Your task to perform on an android device: Empty the shopping cart on walmart.com. Image 0: 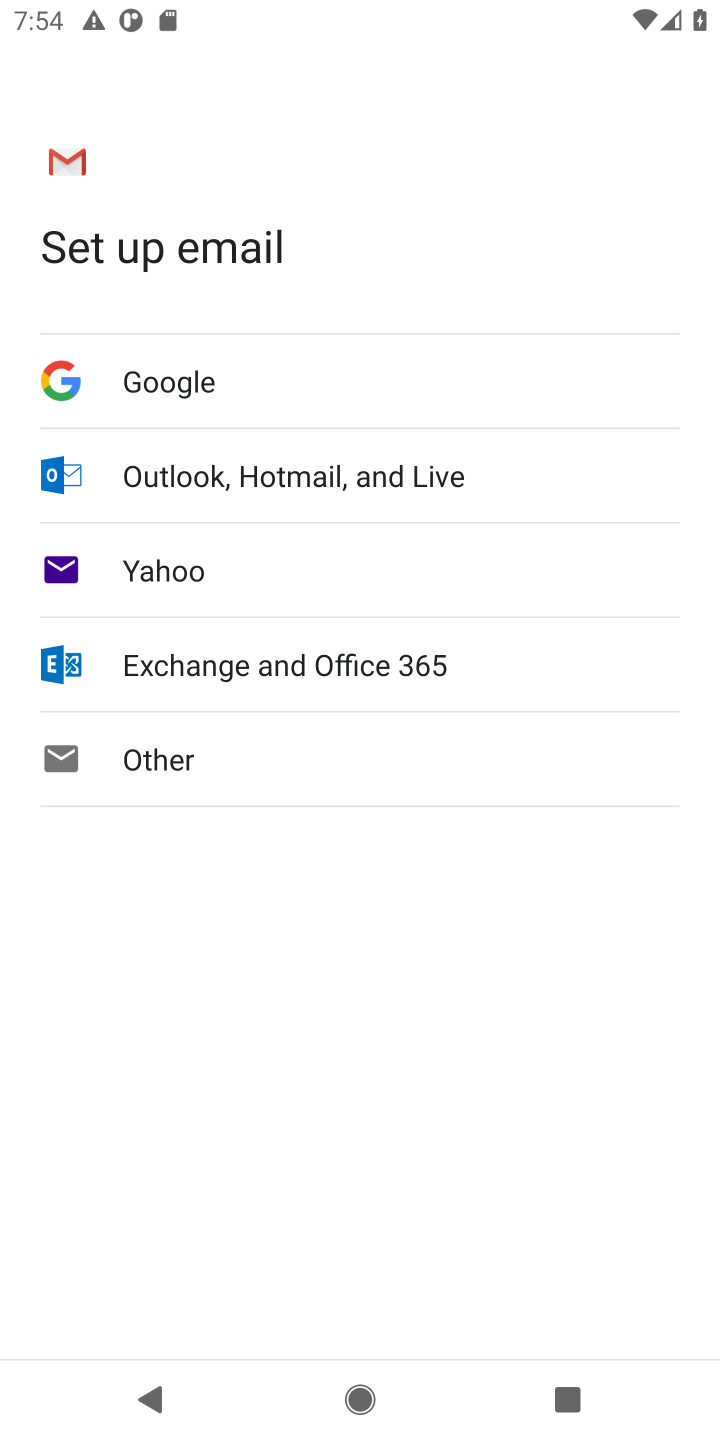
Step 0: press home button
Your task to perform on an android device: Empty the shopping cart on walmart.com. Image 1: 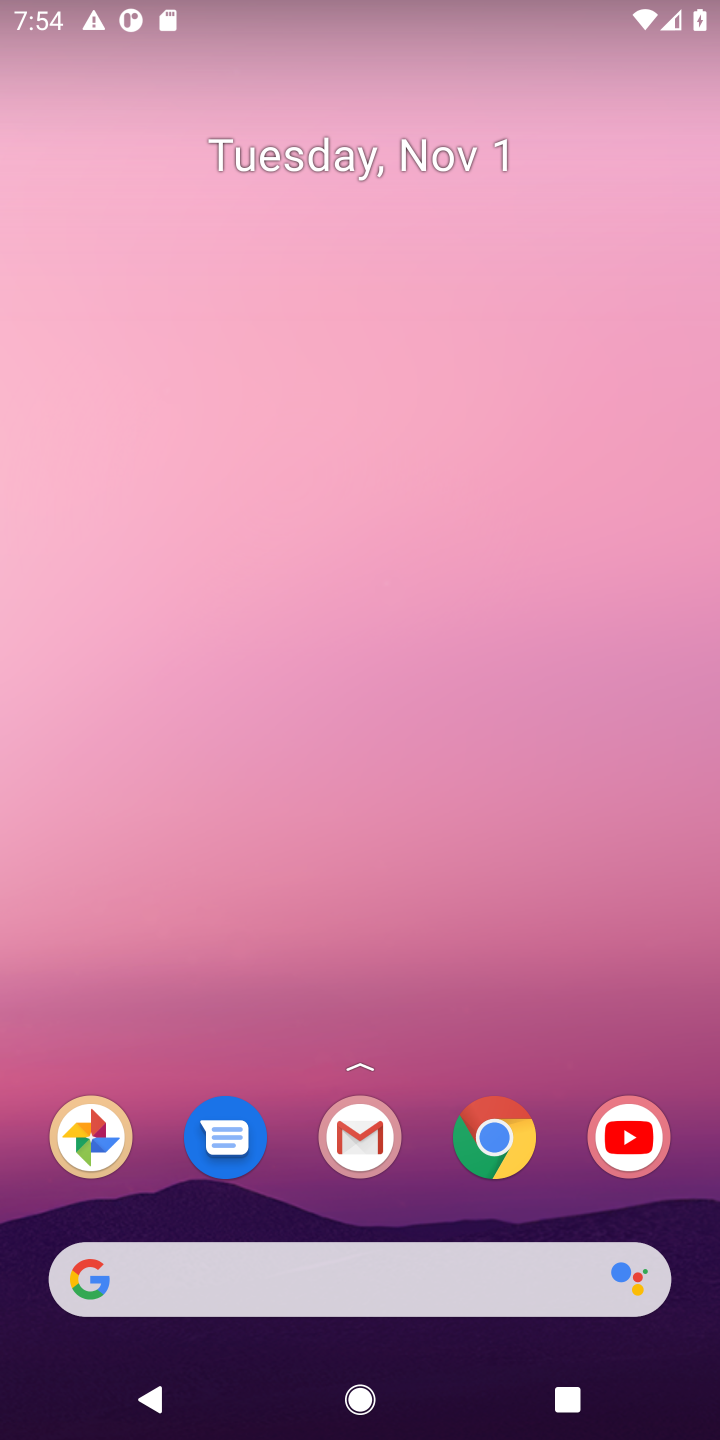
Step 1: click (469, 1129)
Your task to perform on an android device: Empty the shopping cart on walmart.com. Image 2: 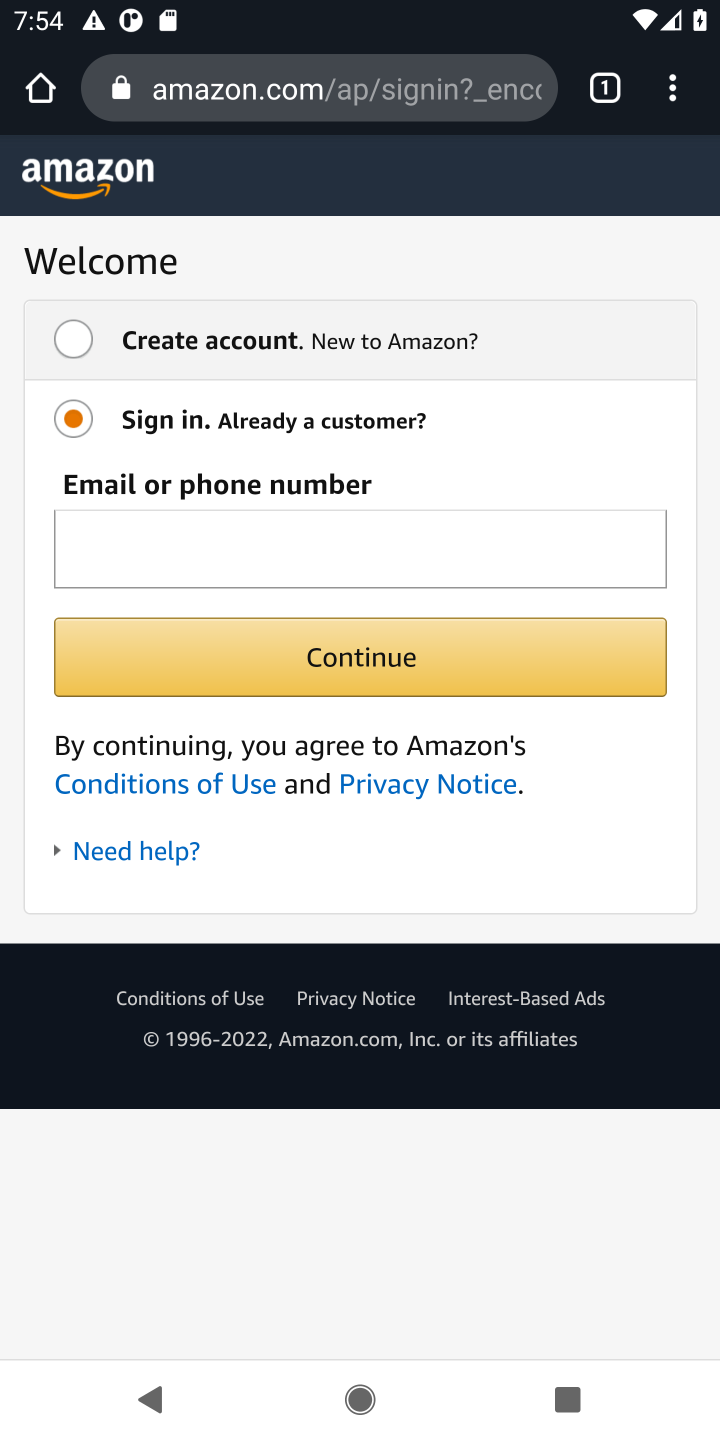
Step 2: press home button
Your task to perform on an android device: Empty the shopping cart on walmart.com. Image 3: 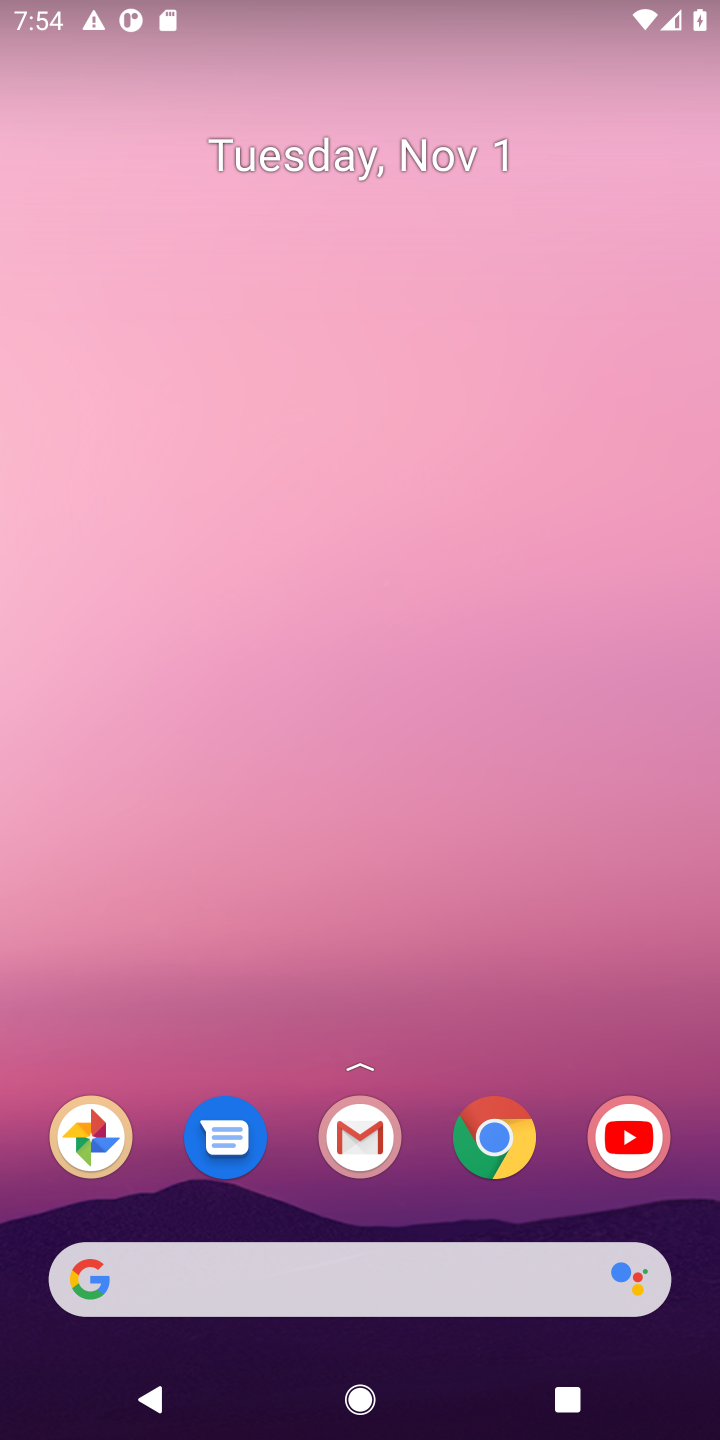
Step 3: click (508, 1153)
Your task to perform on an android device: Empty the shopping cart on walmart.com. Image 4: 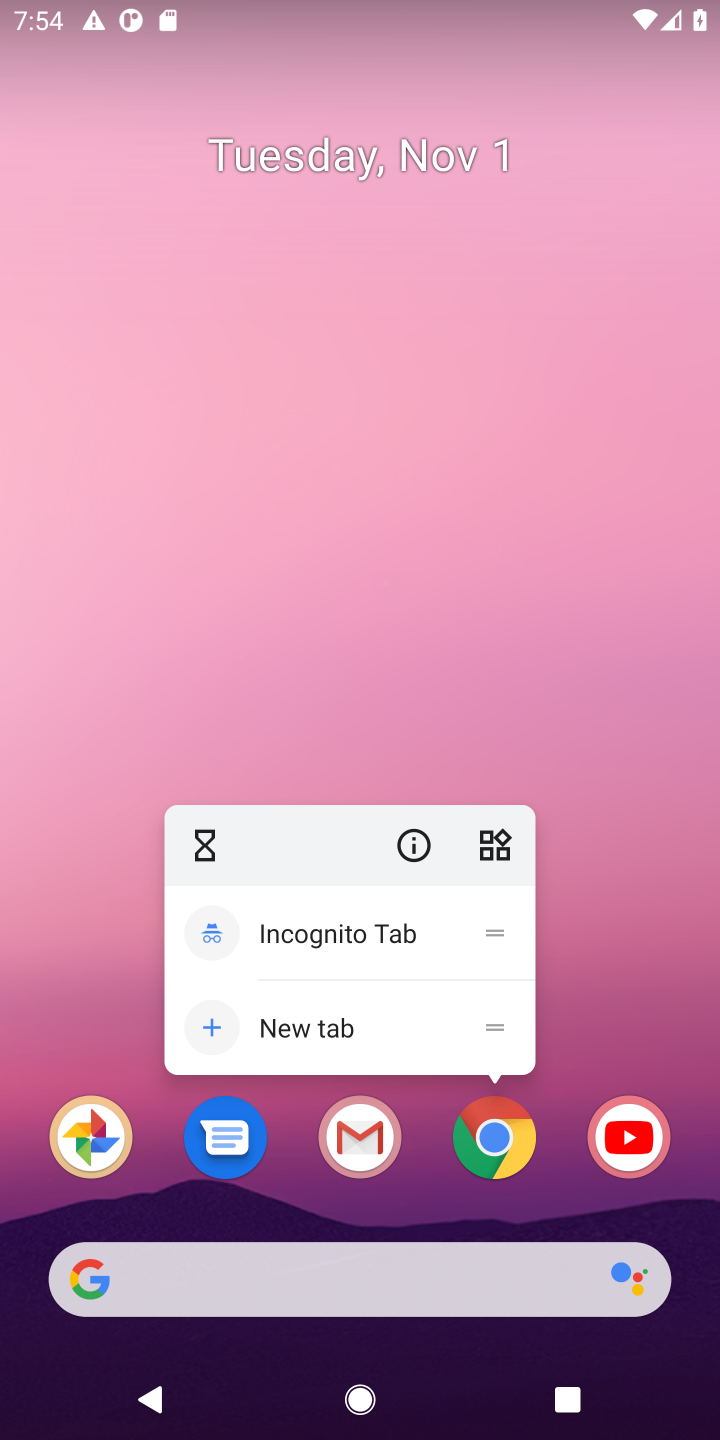
Step 4: click (508, 1153)
Your task to perform on an android device: Empty the shopping cart on walmart.com. Image 5: 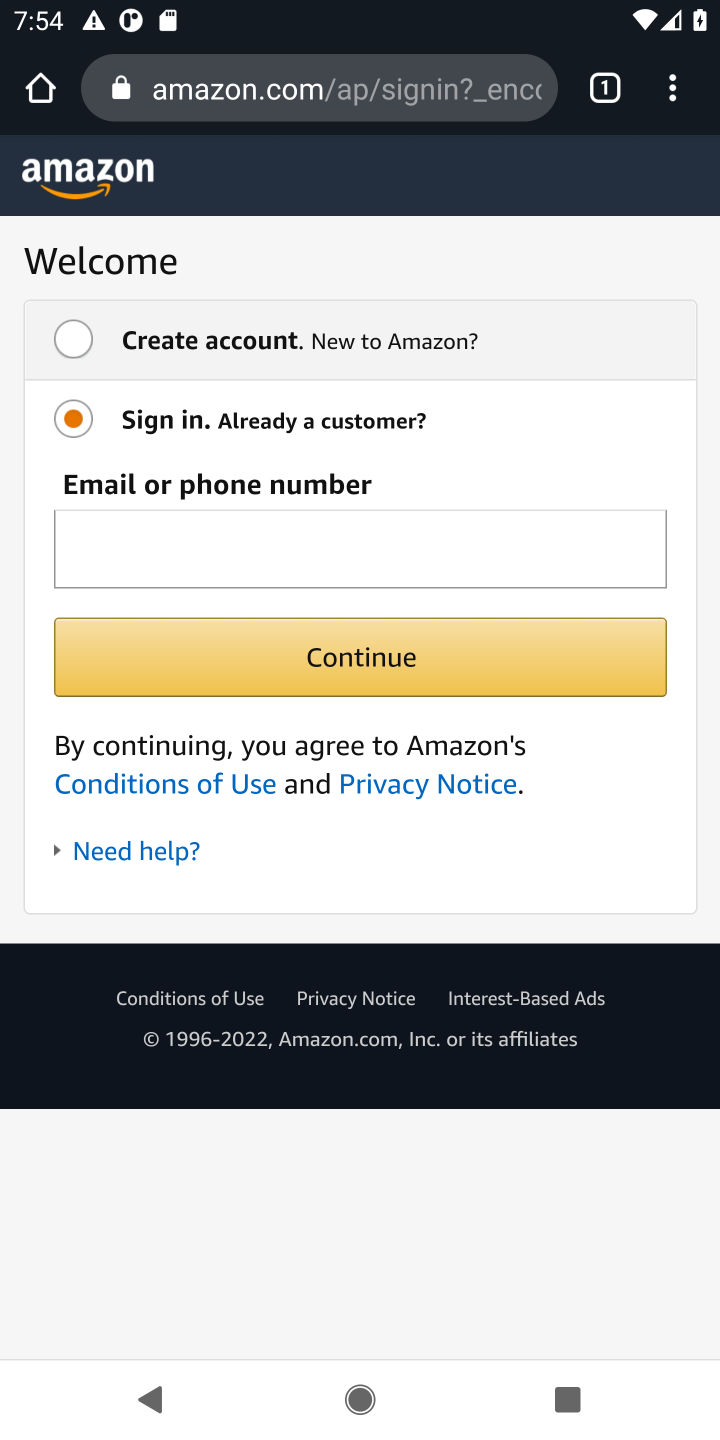
Step 5: click (392, 67)
Your task to perform on an android device: Empty the shopping cart on walmart.com. Image 6: 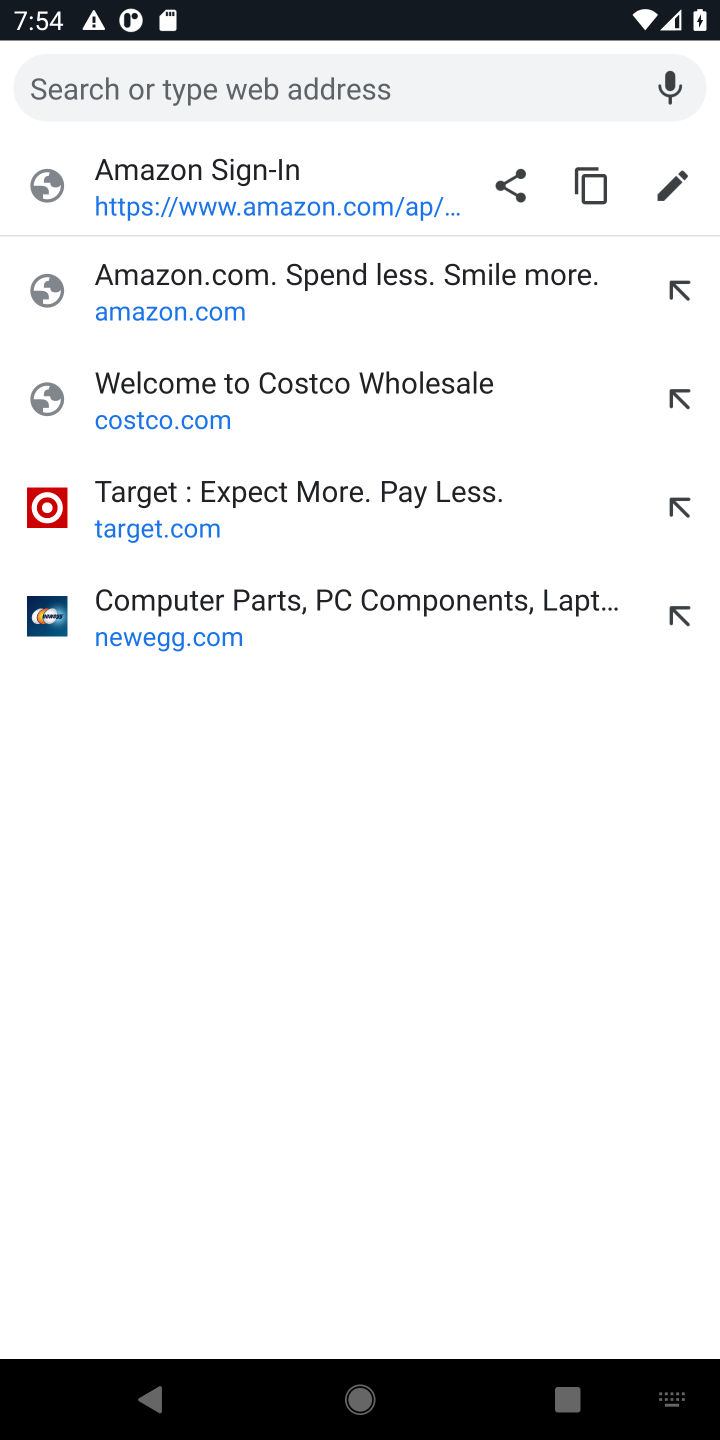
Step 6: type "walmart.com"
Your task to perform on an android device: Empty the shopping cart on walmart.com. Image 7: 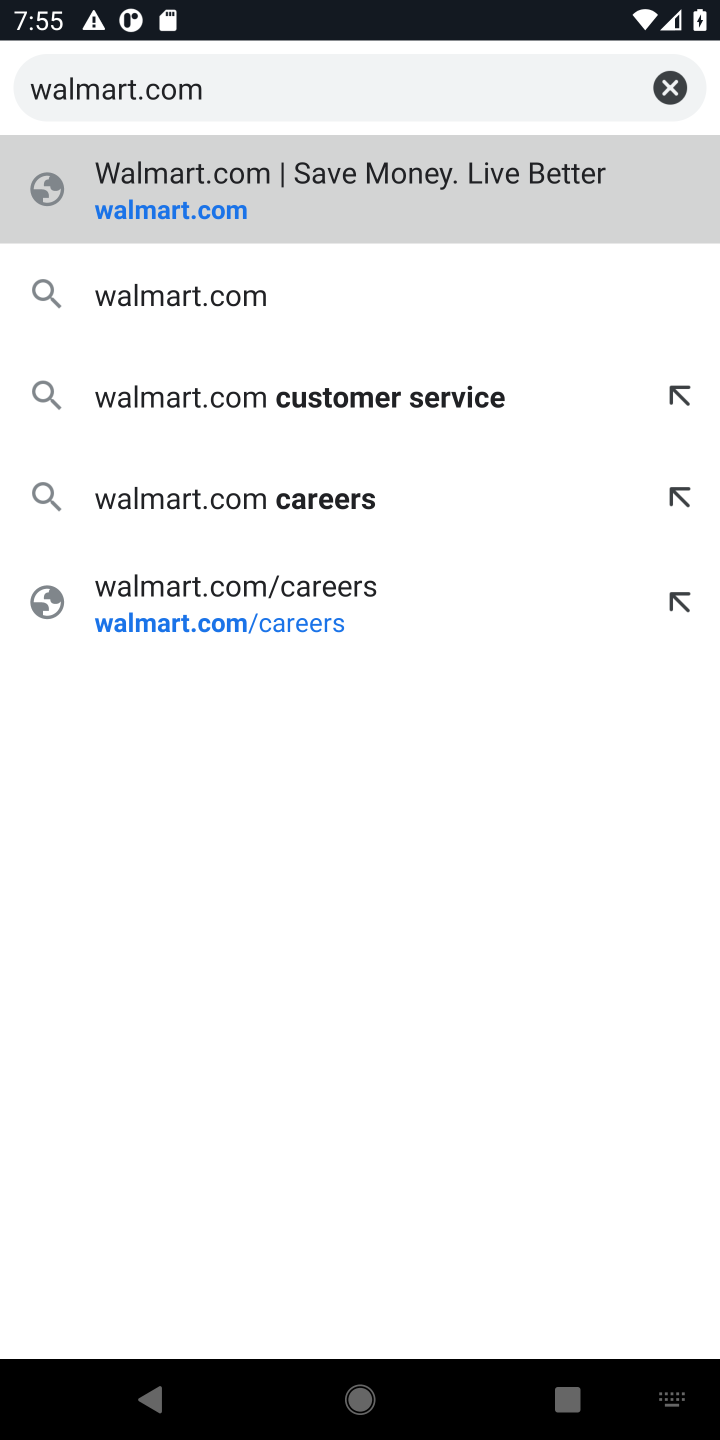
Step 7: click (338, 186)
Your task to perform on an android device: Empty the shopping cart on walmart.com. Image 8: 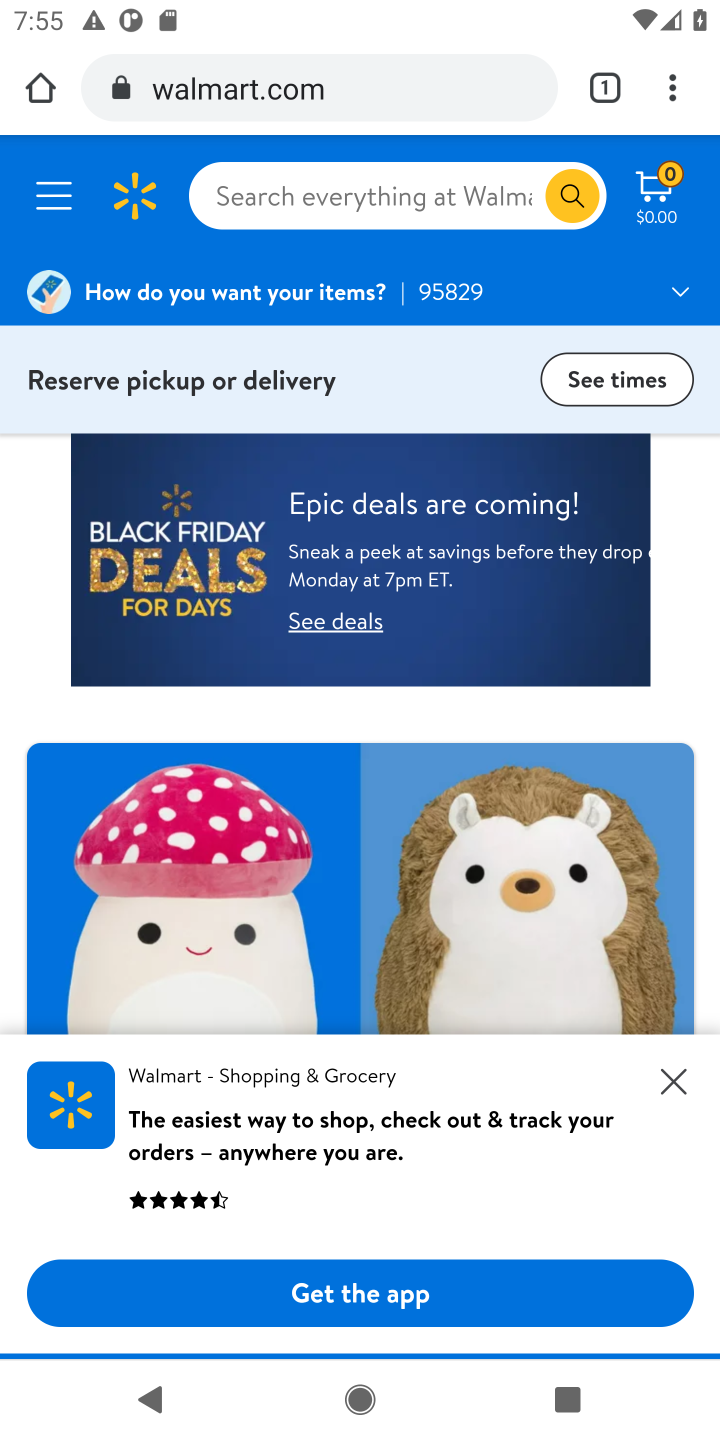
Step 8: click (658, 174)
Your task to perform on an android device: Empty the shopping cart on walmart.com. Image 9: 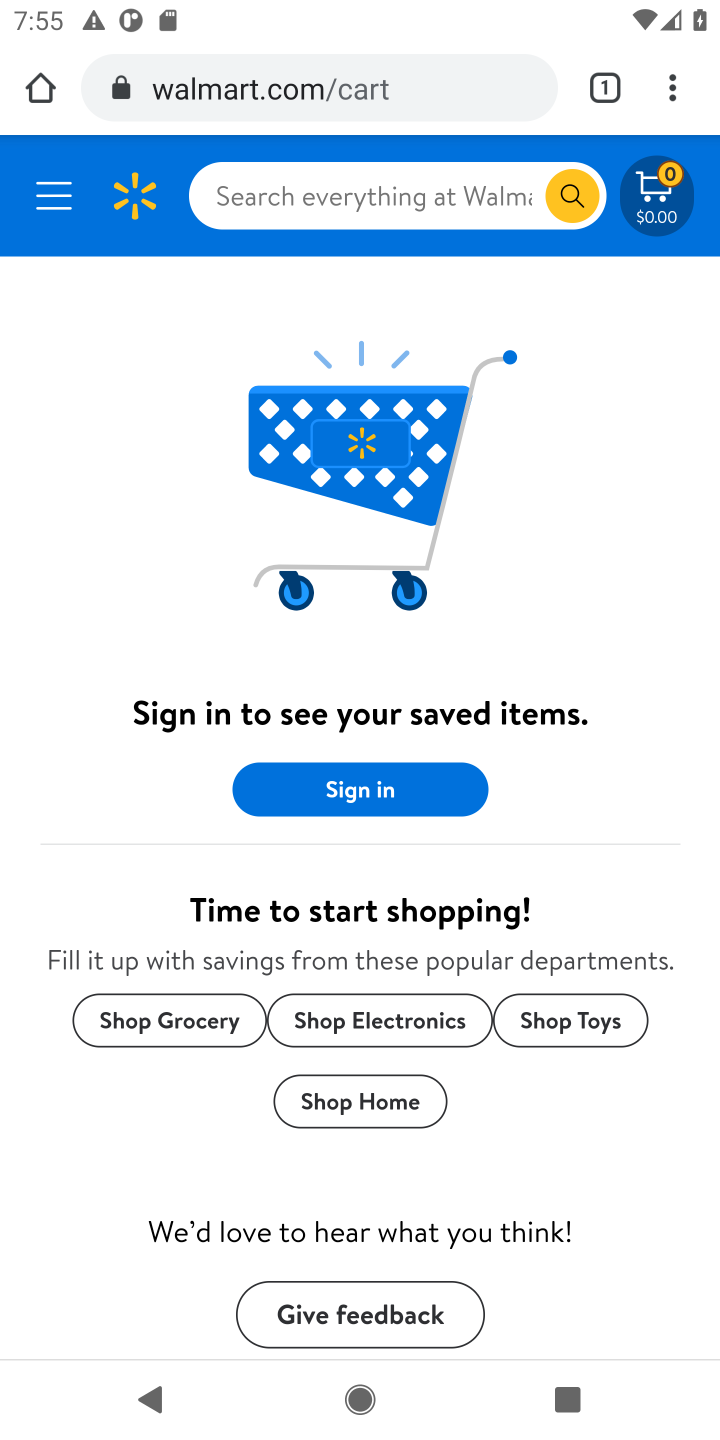
Step 9: task complete